Your task to perform on an android device: check out phone information Image 0: 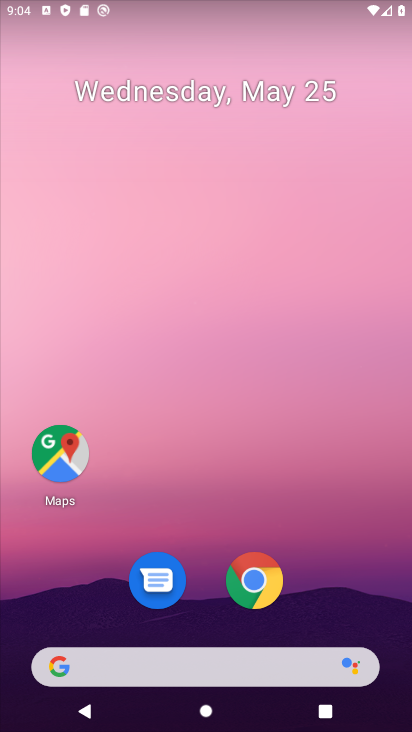
Step 0: press home button
Your task to perform on an android device: check out phone information Image 1: 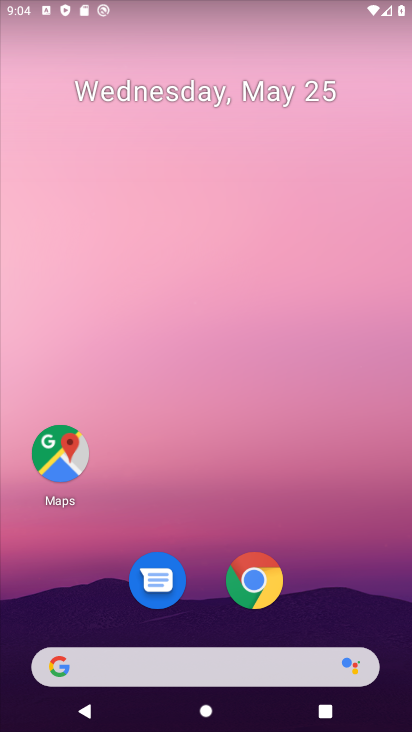
Step 1: drag from (56, 563) to (303, 55)
Your task to perform on an android device: check out phone information Image 2: 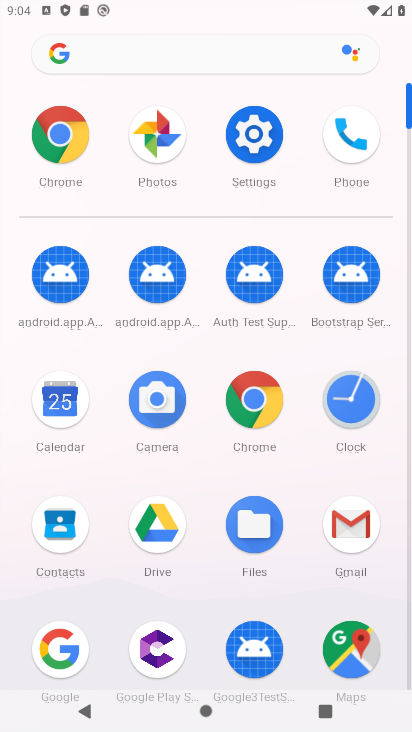
Step 2: drag from (69, 552) to (261, 184)
Your task to perform on an android device: check out phone information Image 3: 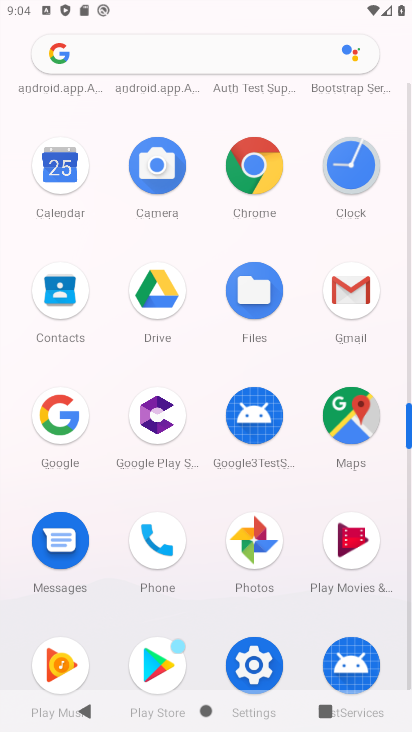
Step 3: click (154, 525)
Your task to perform on an android device: check out phone information Image 4: 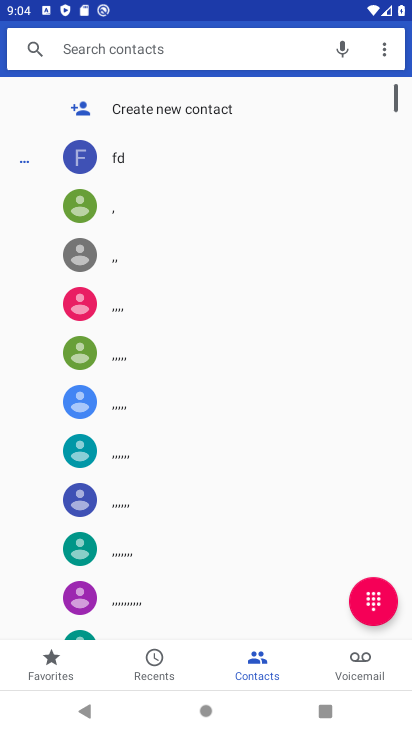
Step 4: task complete